Your task to perform on an android device: Open sound settings Image 0: 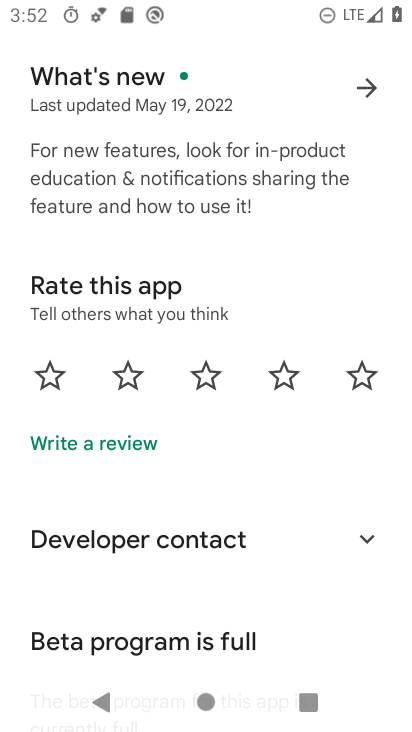
Step 0: press home button
Your task to perform on an android device: Open sound settings Image 1: 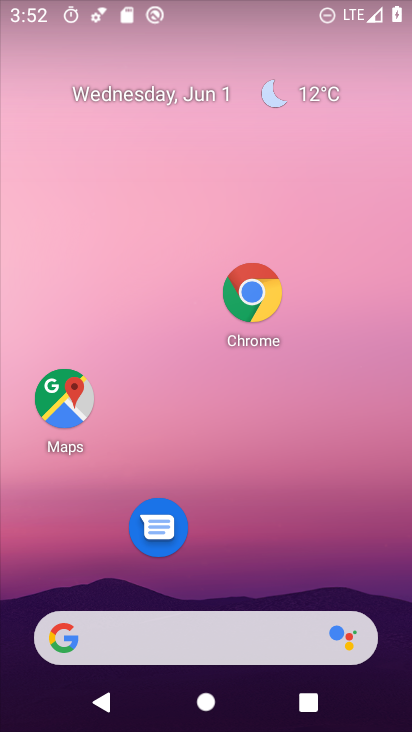
Step 1: drag from (309, 570) to (347, 6)
Your task to perform on an android device: Open sound settings Image 2: 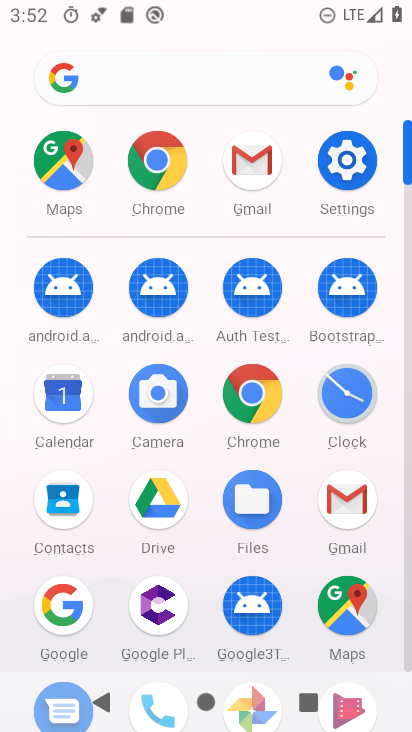
Step 2: click (338, 196)
Your task to perform on an android device: Open sound settings Image 3: 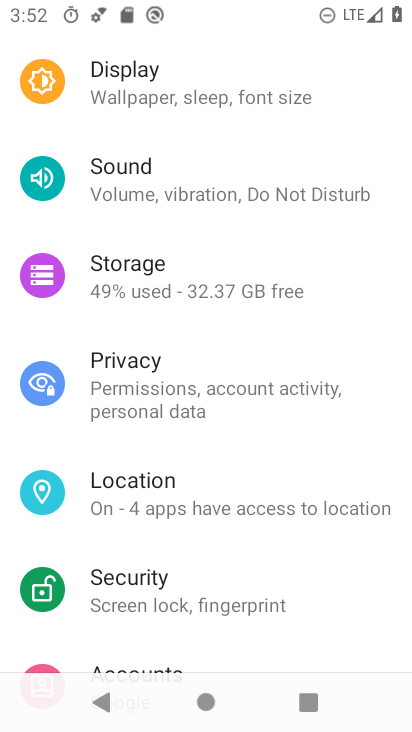
Step 3: click (272, 191)
Your task to perform on an android device: Open sound settings Image 4: 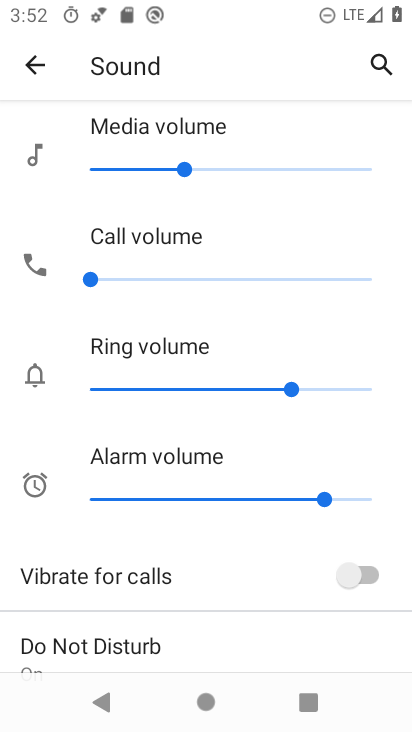
Step 4: task complete